Your task to perform on an android device: View the shopping cart on target.com. Add lg ultragear to the cart on target.com, then select checkout. Image 0: 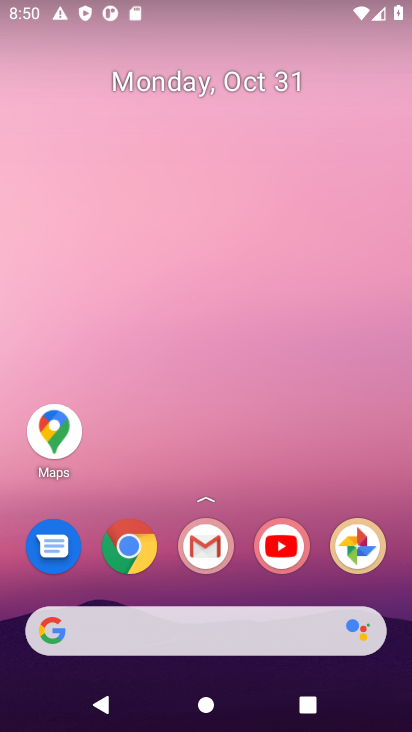
Step 0: click (135, 548)
Your task to perform on an android device: View the shopping cart on target.com. Add lg ultragear to the cart on target.com, then select checkout. Image 1: 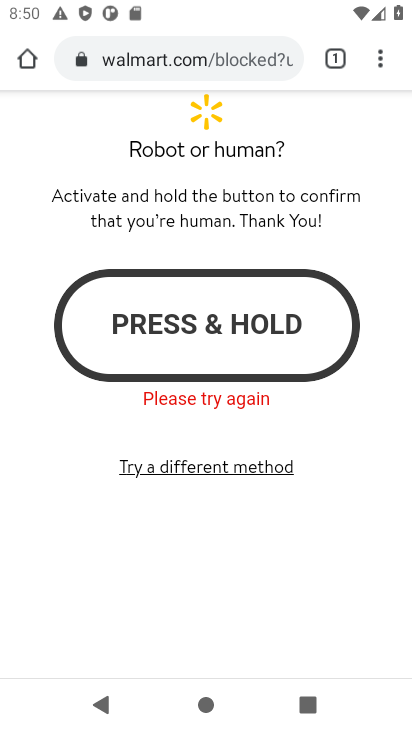
Step 1: click (191, 57)
Your task to perform on an android device: View the shopping cart on target.com. Add lg ultragear to the cart on target.com, then select checkout. Image 2: 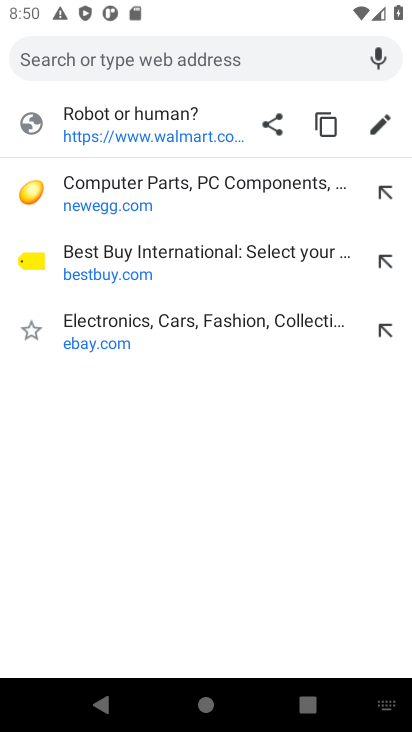
Step 2: type "target.com"
Your task to perform on an android device: View the shopping cart on target.com. Add lg ultragear to the cart on target.com, then select checkout. Image 3: 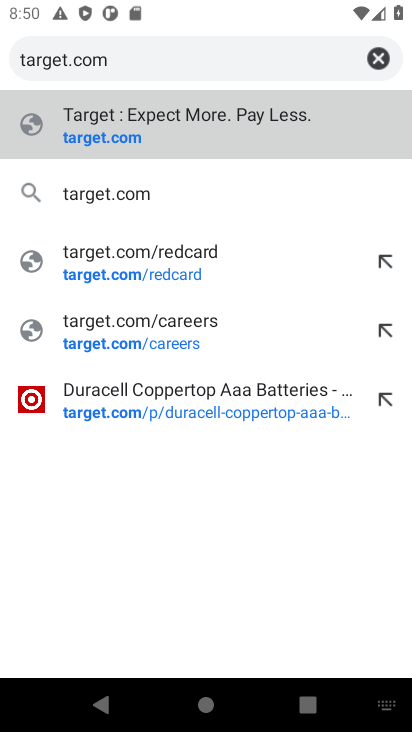
Step 3: press enter
Your task to perform on an android device: View the shopping cart on target.com. Add lg ultragear to the cart on target.com, then select checkout. Image 4: 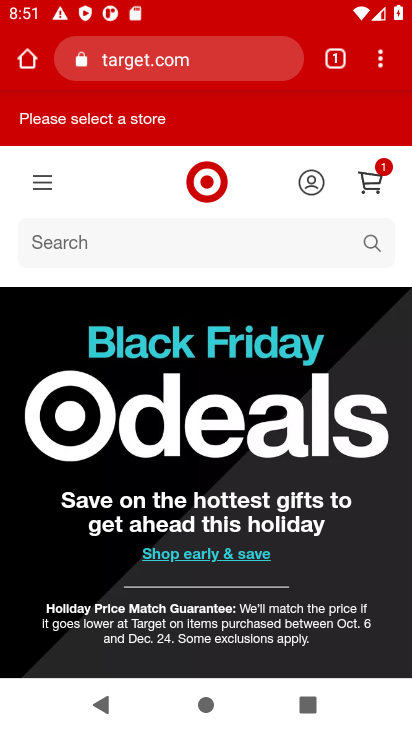
Step 4: click (365, 176)
Your task to perform on an android device: View the shopping cart on target.com. Add lg ultragear to the cart on target.com, then select checkout. Image 5: 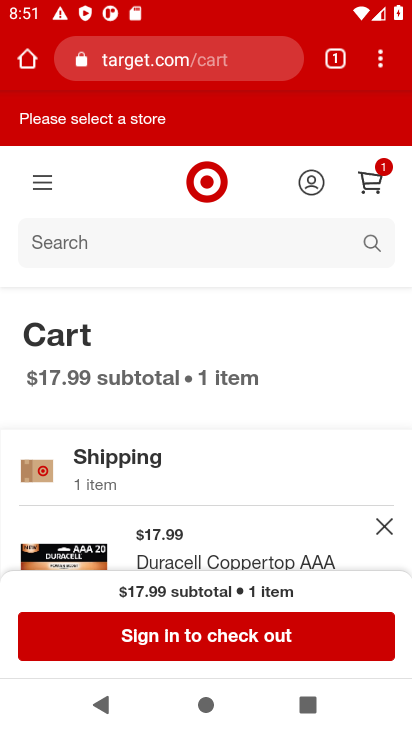
Step 5: click (386, 535)
Your task to perform on an android device: View the shopping cart on target.com. Add lg ultragear to the cart on target.com, then select checkout. Image 6: 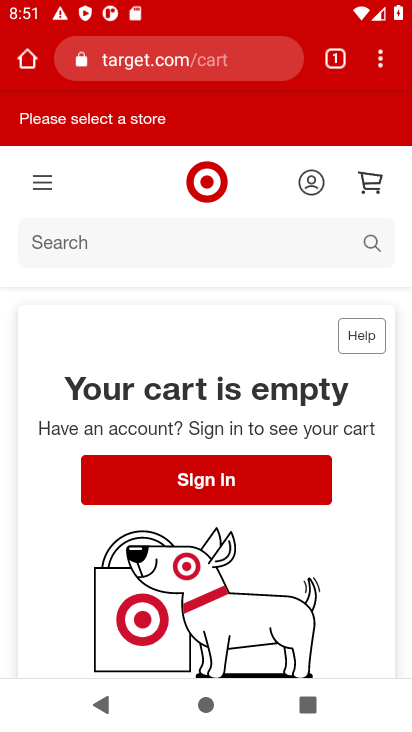
Step 6: click (372, 242)
Your task to perform on an android device: View the shopping cart on target.com. Add lg ultragear to the cart on target.com, then select checkout. Image 7: 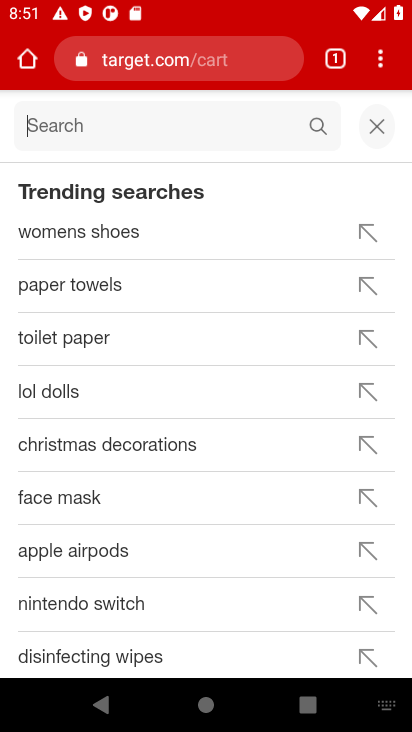
Step 7: type "lg ultragear"
Your task to perform on an android device: View the shopping cart on target.com. Add lg ultragear to the cart on target.com, then select checkout. Image 8: 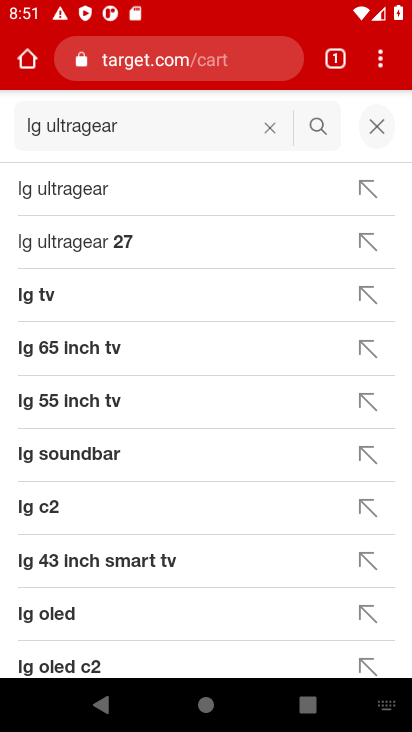
Step 8: press enter
Your task to perform on an android device: View the shopping cart on target.com. Add lg ultragear to the cart on target.com, then select checkout. Image 9: 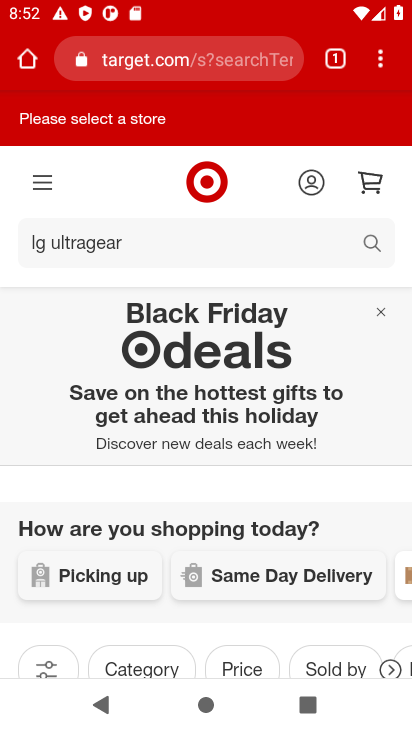
Step 9: drag from (226, 503) to (261, 235)
Your task to perform on an android device: View the shopping cart on target.com. Add lg ultragear to the cart on target.com, then select checkout. Image 10: 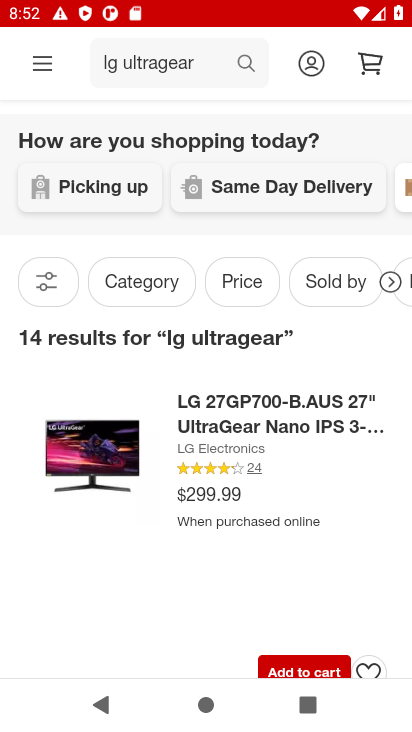
Step 10: click (274, 429)
Your task to perform on an android device: View the shopping cart on target.com. Add lg ultragear to the cart on target.com, then select checkout. Image 11: 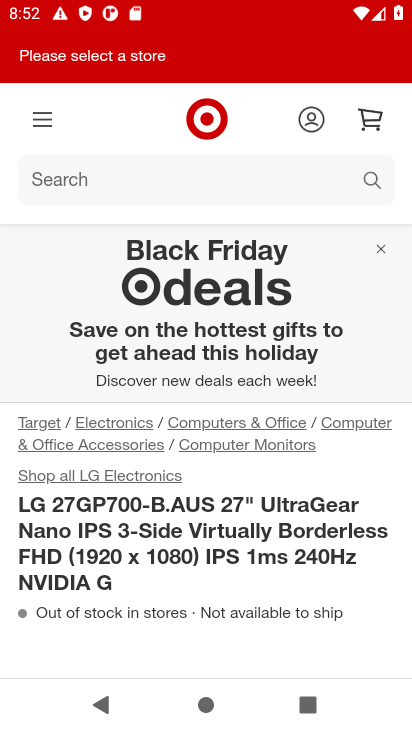
Step 11: drag from (219, 575) to (254, 166)
Your task to perform on an android device: View the shopping cart on target.com. Add lg ultragear to the cart on target.com, then select checkout. Image 12: 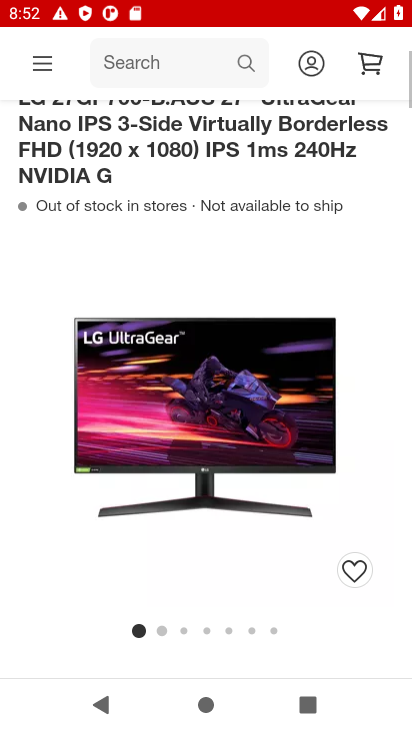
Step 12: drag from (253, 382) to (300, 210)
Your task to perform on an android device: View the shopping cart on target.com. Add lg ultragear to the cart on target.com, then select checkout. Image 13: 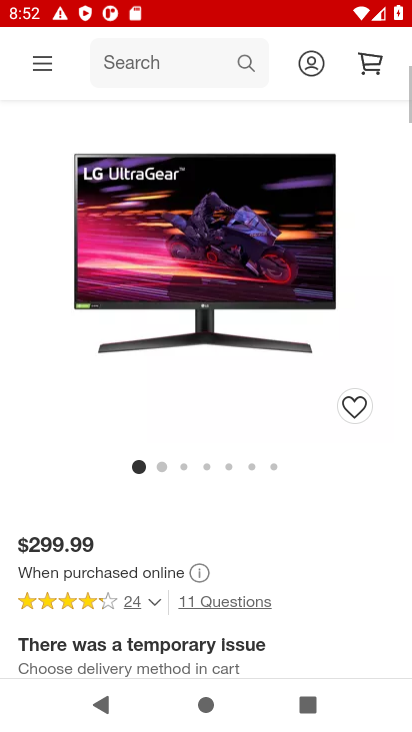
Step 13: drag from (278, 377) to (298, 229)
Your task to perform on an android device: View the shopping cart on target.com. Add lg ultragear to the cart on target.com, then select checkout. Image 14: 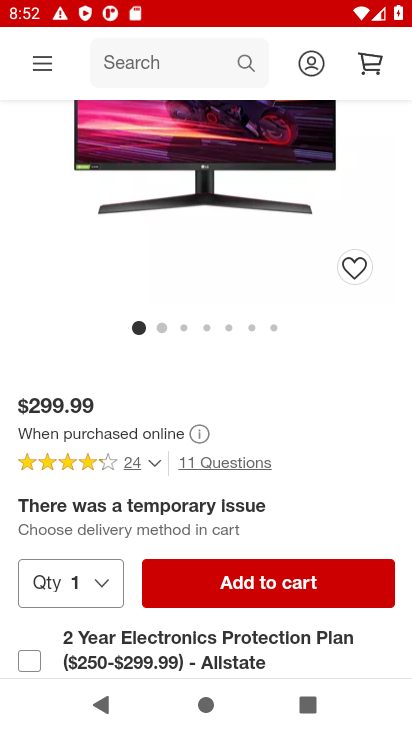
Step 14: click (287, 579)
Your task to perform on an android device: View the shopping cart on target.com. Add lg ultragear to the cart on target.com, then select checkout. Image 15: 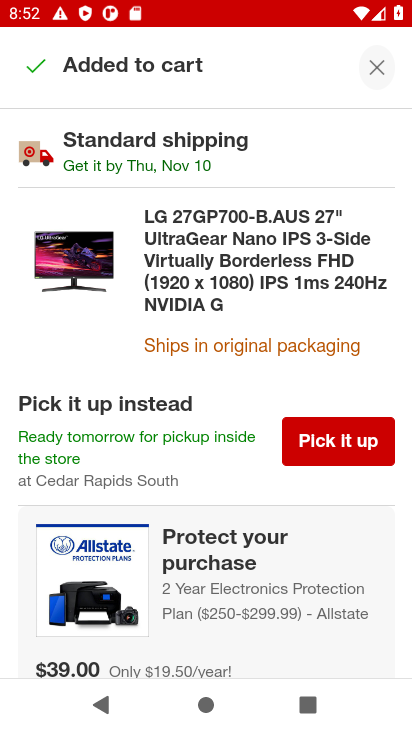
Step 15: drag from (181, 426) to (216, 165)
Your task to perform on an android device: View the shopping cart on target.com. Add lg ultragear to the cart on target.com, then select checkout. Image 16: 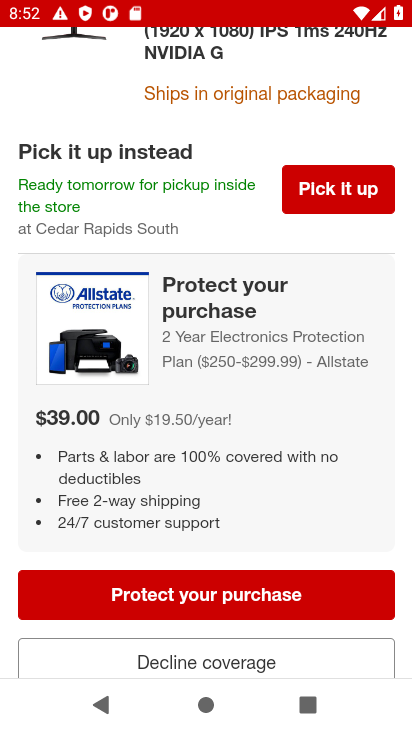
Step 16: click (209, 606)
Your task to perform on an android device: View the shopping cart on target.com. Add lg ultragear to the cart on target.com, then select checkout. Image 17: 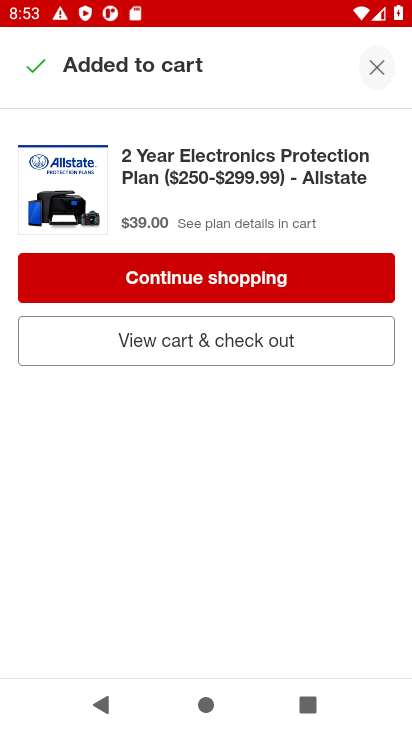
Step 17: click (239, 279)
Your task to perform on an android device: View the shopping cart on target.com. Add lg ultragear to the cart on target.com, then select checkout. Image 18: 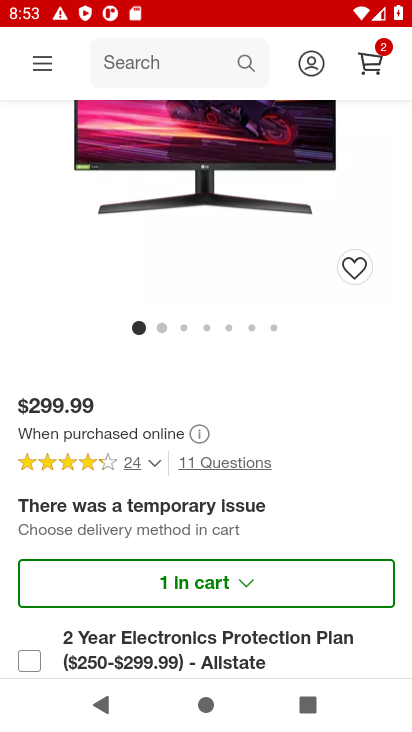
Step 18: task complete